Your task to perform on an android device: Open the calendar app, open the side menu, and click the "Day" option Image 0: 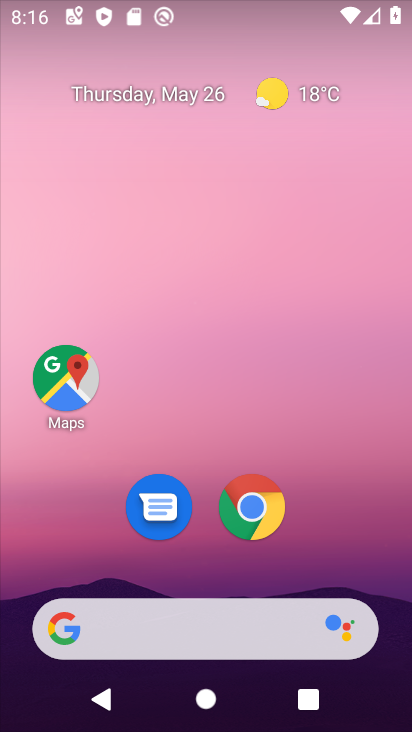
Step 0: press home button
Your task to perform on an android device: Open the calendar app, open the side menu, and click the "Day" option Image 1: 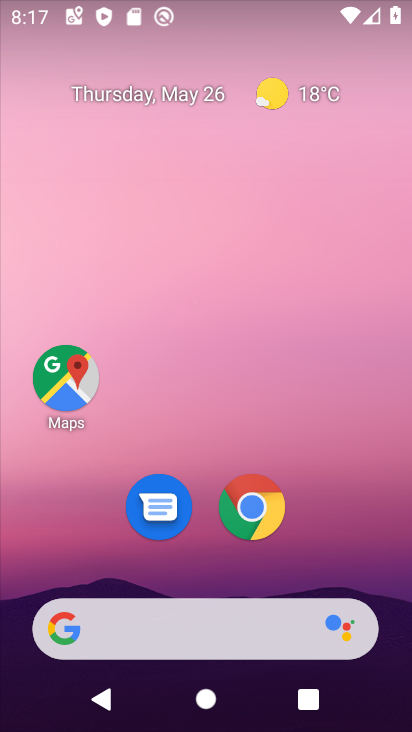
Step 1: drag from (254, 665) to (157, 79)
Your task to perform on an android device: Open the calendar app, open the side menu, and click the "Day" option Image 2: 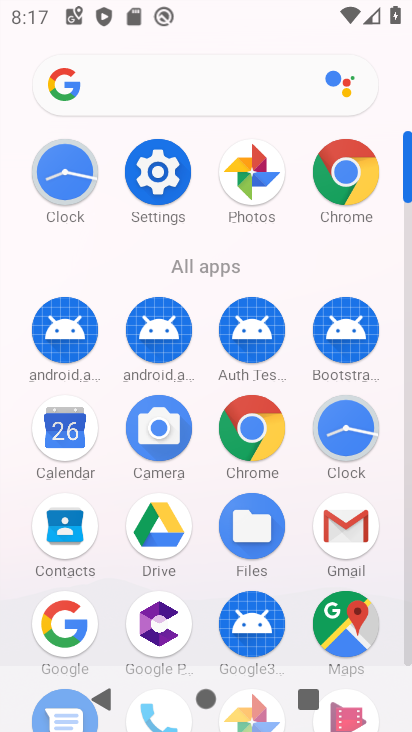
Step 2: click (71, 428)
Your task to perform on an android device: Open the calendar app, open the side menu, and click the "Day" option Image 3: 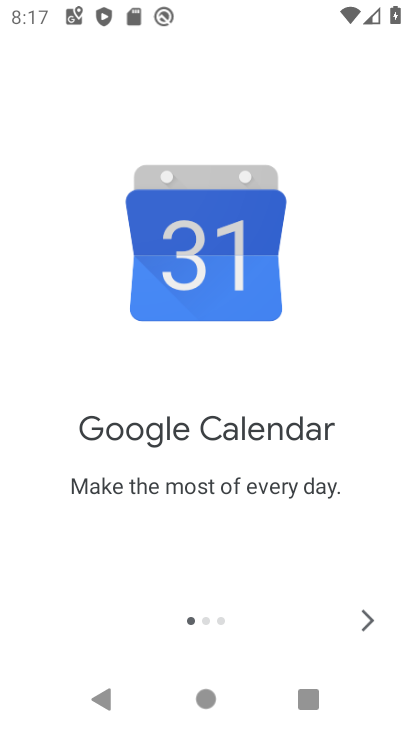
Step 3: click (363, 629)
Your task to perform on an android device: Open the calendar app, open the side menu, and click the "Day" option Image 4: 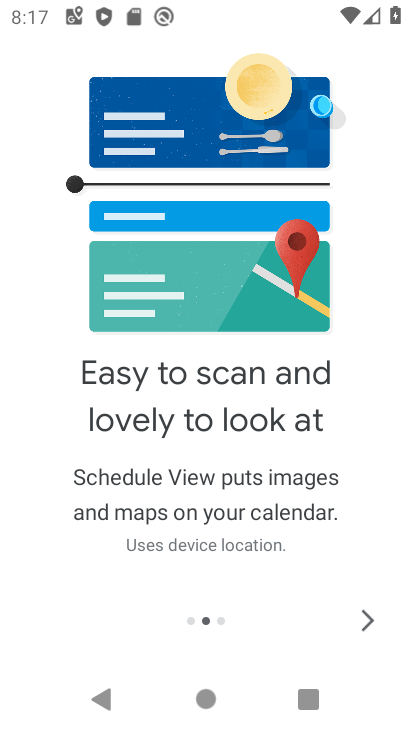
Step 4: click (360, 626)
Your task to perform on an android device: Open the calendar app, open the side menu, and click the "Day" option Image 5: 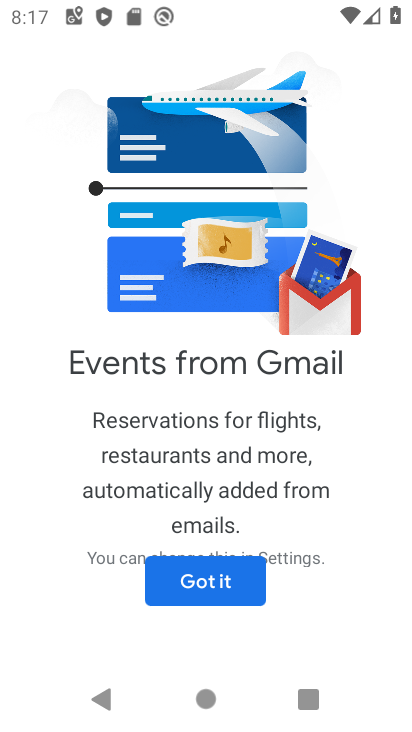
Step 5: click (359, 623)
Your task to perform on an android device: Open the calendar app, open the side menu, and click the "Day" option Image 6: 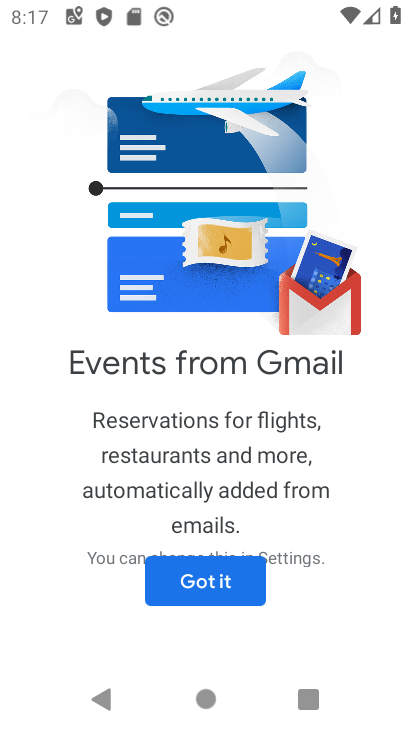
Step 6: click (230, 578)
Your task to perform on an android device: Open the calendar app, open the side menu, and click the "Day" option Image 7: 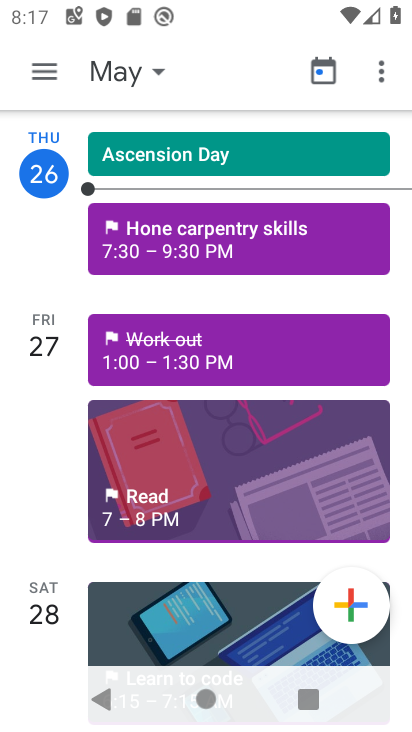
Step 7: click (33, 75)
Your task to perform on an android device: Open the calendar app, open the side menu, and click the "Day" option Image 8: 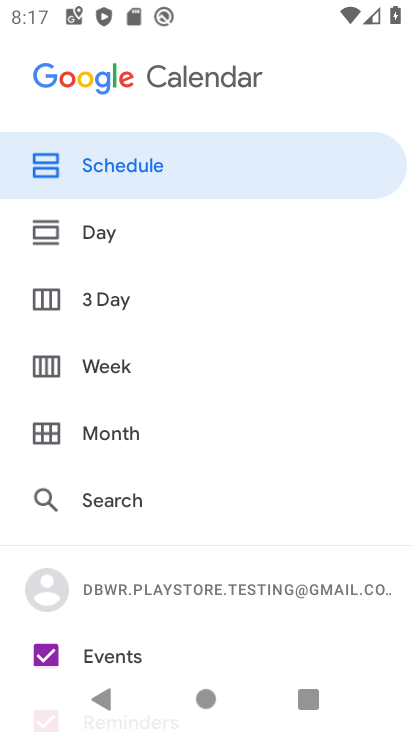
Step 8: click (133, 239)
Your task to perform on an android device: Open the calendar app, open the side menu, and click the "Day" option Image 9: 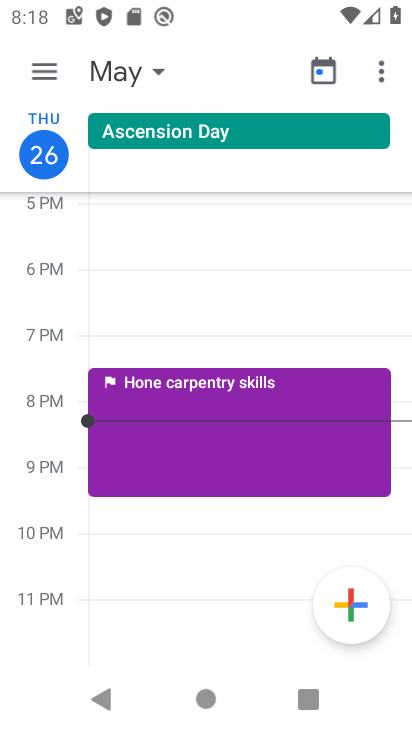
Step 9: task complete